Your task to perform on an android device: Open maps Image 0: 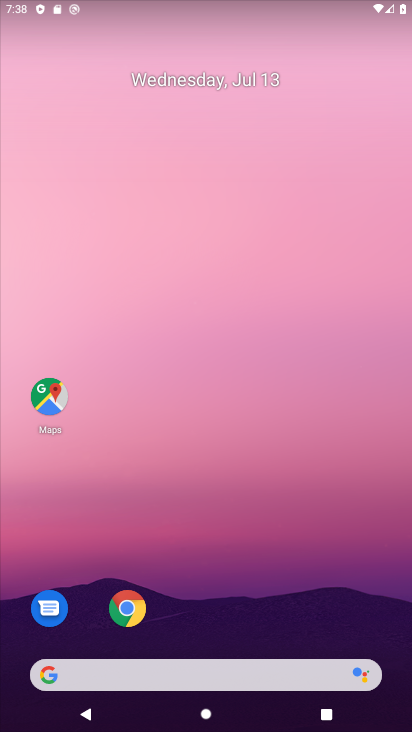
Step 0: click (52, 405)
Your task to perform on an android device: Open maps Image 1: 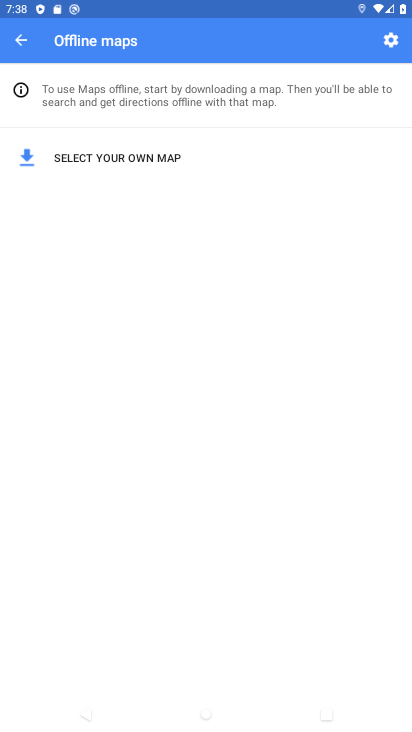
Step 1: click (14, 42)
Your task to perform on an android device: Open maps Image 2: 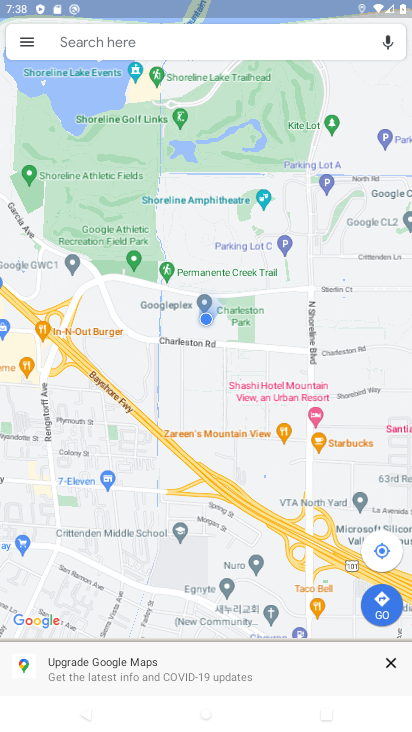
Step 2: task complete